Your task to perform on an android device: install app "Flipkart Online Shopping App" Image 0: 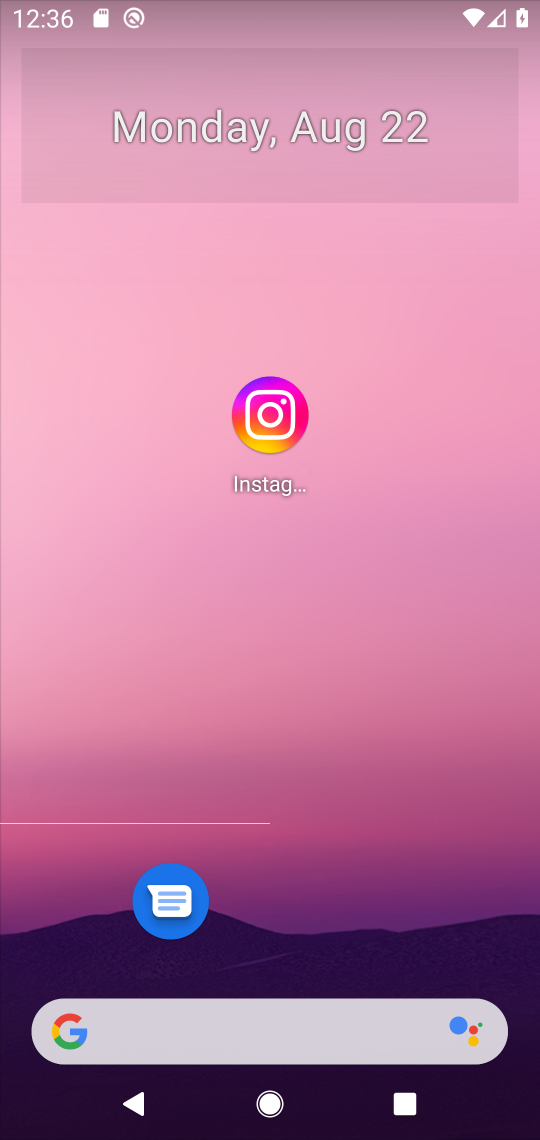
Step 0: drag from (362, 980) to (412, 262)
Your task to perform on an android device: install app "Flipkart Online Shopping App" Image 1: 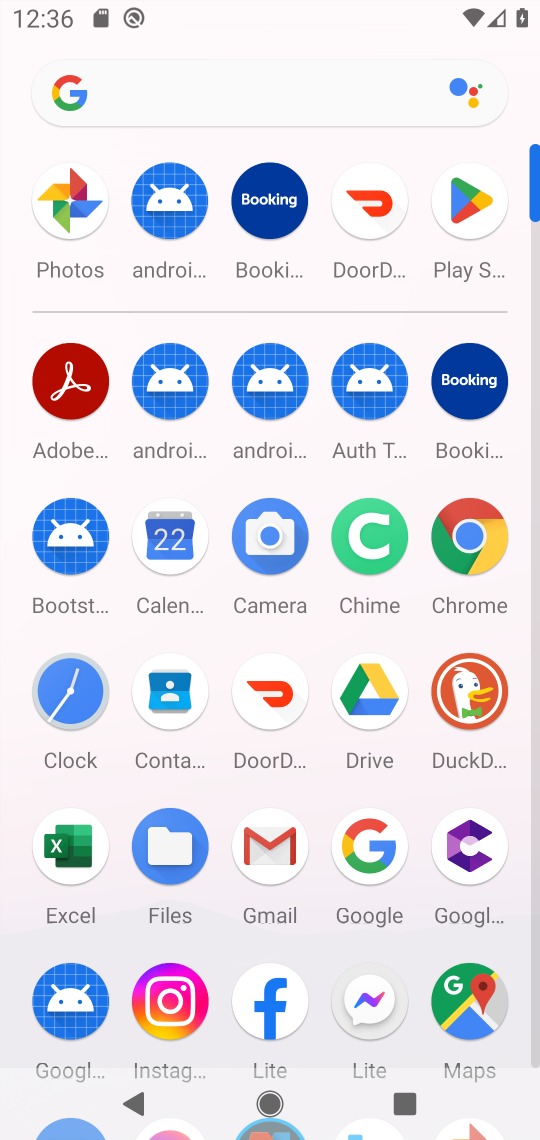
Step 1: click (479, 256)
Your task to perform on an android device: install app "Flipkart Online Shopping App" Image 2: 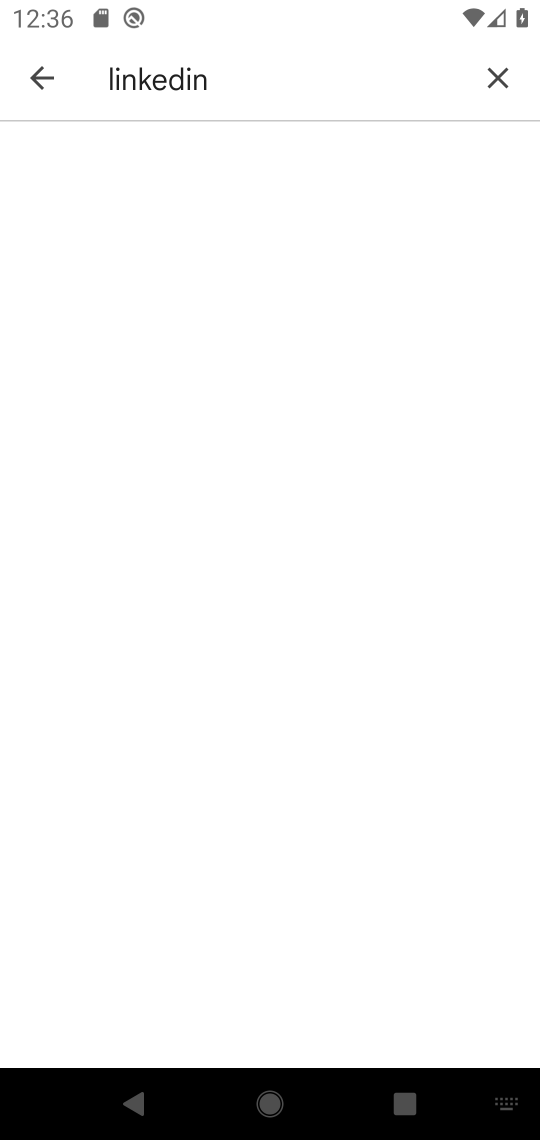
Step 2: click (505, 97)
Your task to perform on an android device: install app "Flipkart Online Shopping App" Image 3: 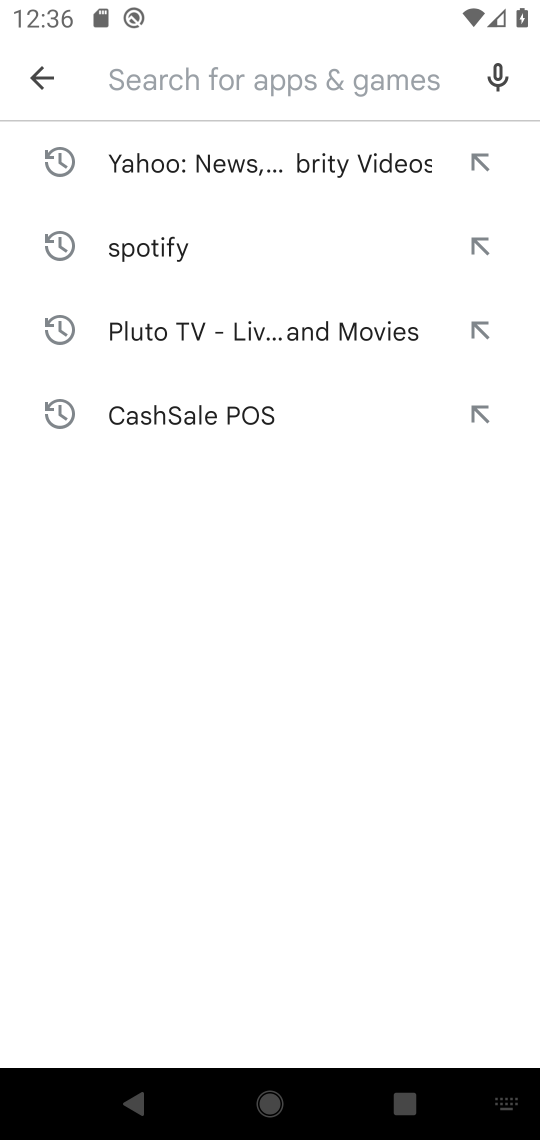
Step 3: type "flipkart"
Your task to perform on an android device: install app "Flipkart Online Shopping App" Image 4: 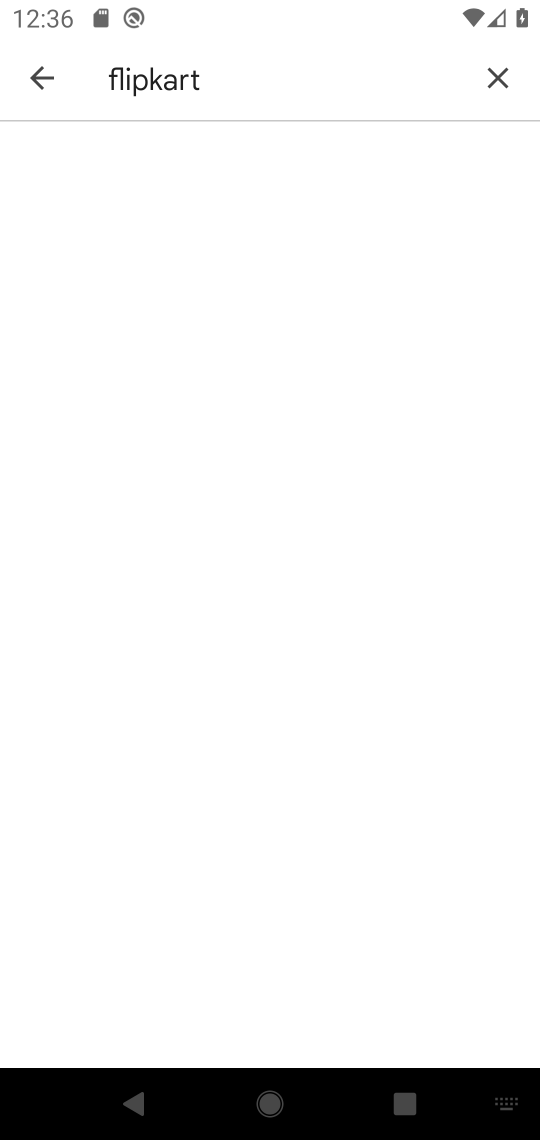
Step 4: task complete